Your task to perform on an android device: set default search engine in the chrome app Image 0: 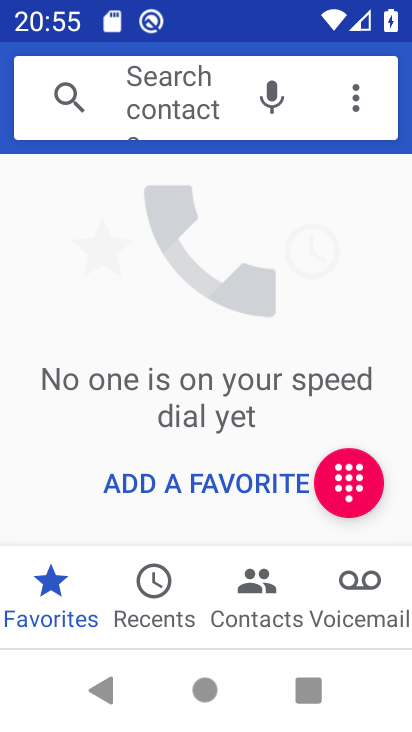
Step 0: press home button
Your task to perform on an android device: set default search engine in the chrome app Image 1: 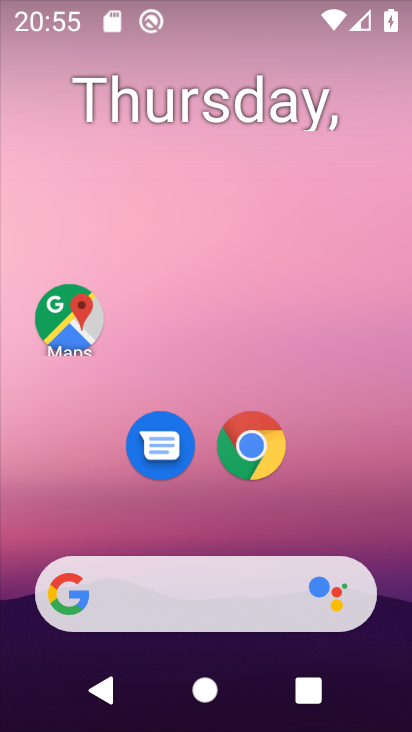
Step 1: click (259, 445)
Your task to perform on an android device: set default search engine in the chrome app Image 2: 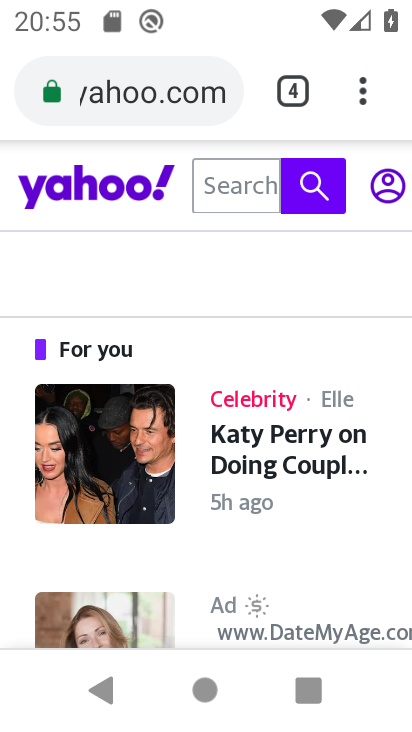
Step 2: drag from (360, 95) to (130, 468)
Your task to perform on an android device: set default search engine in the chrome app Image 3: 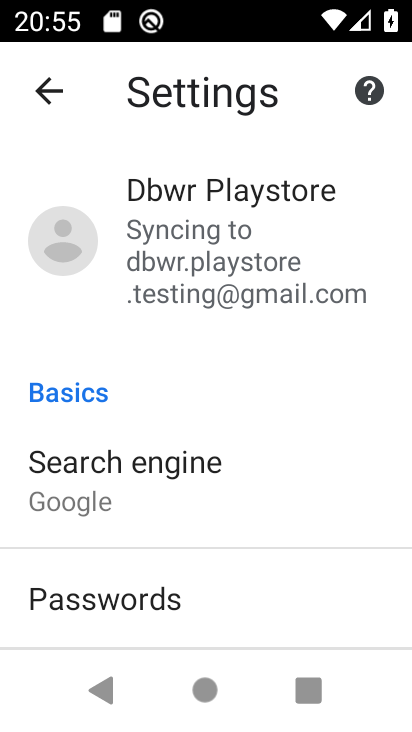
Step 3: click (110, 509)
Your task to perform on an android device: set default search engine in the chrome app Image 4: 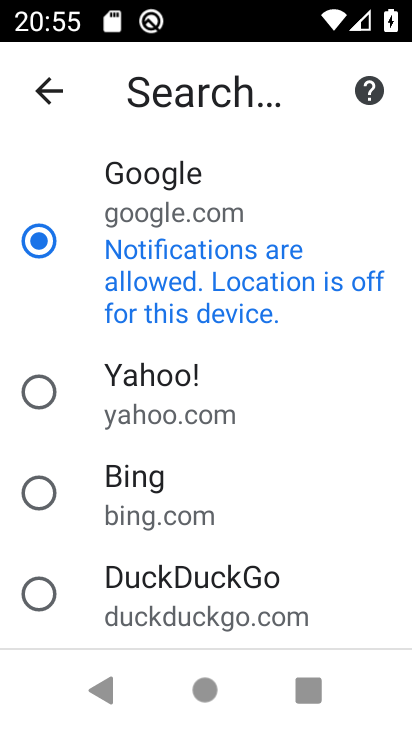
Step 4: click (117, 580)
Your task to perform on an android device: set default search engine in the chrome app Image 5: 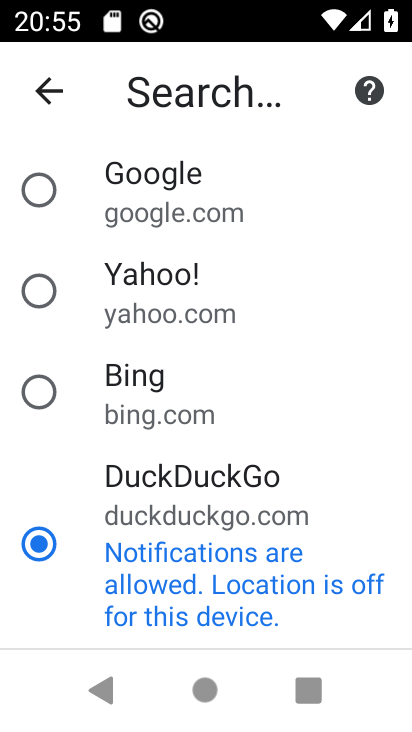
Step 5: task complete